Your task to perform on an android device: Open calendar and show me the second week of next month Image 0: 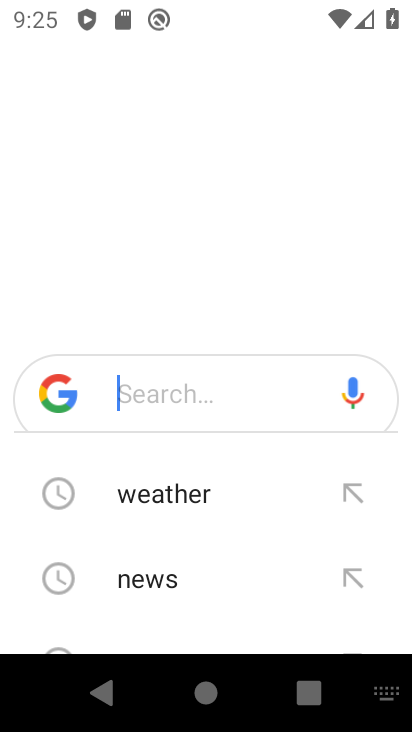
Step 0: press home button
Your task to perform on an android device: Open calendar and show me the second week of next month Image 1: 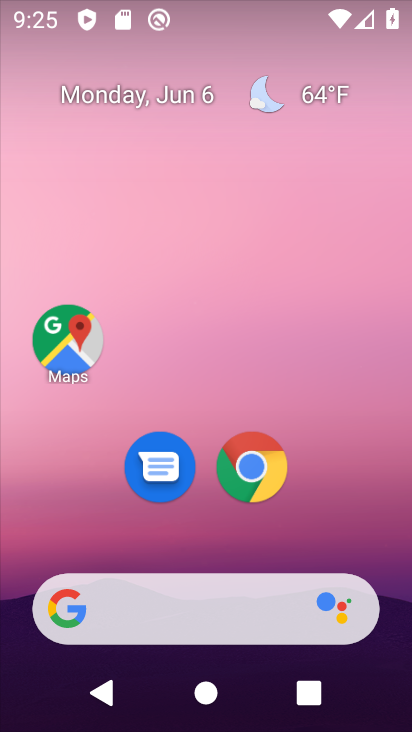
Step 1: drag from (96, 565) to (182, 132)
Your task to perform on an android device: Open calendar and show me the second week of next month Image 2: 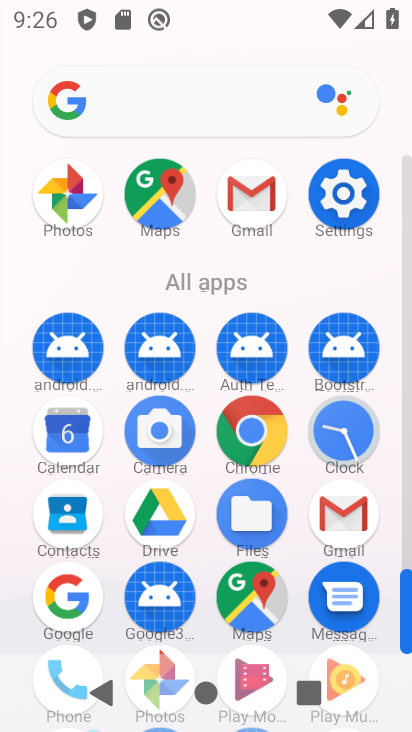
Step 2: click (56, 439)
Your task to perform on an android device: Open calendar and show me the second week of next month Image 3: 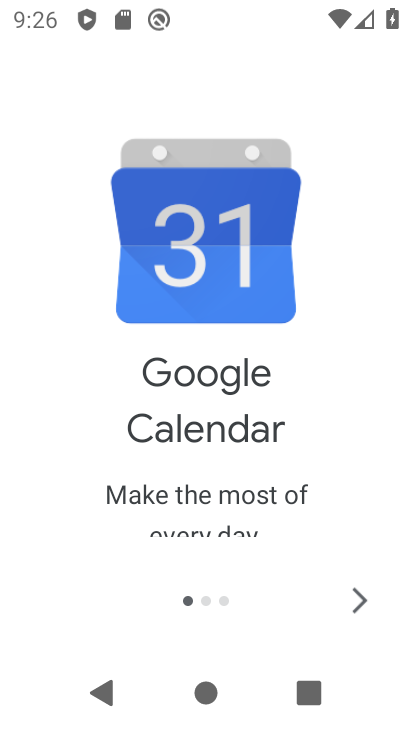
Step 3: click (362, 608)
Your task to perform on an android device: Open calendar and show me the second week of next month Image 4: 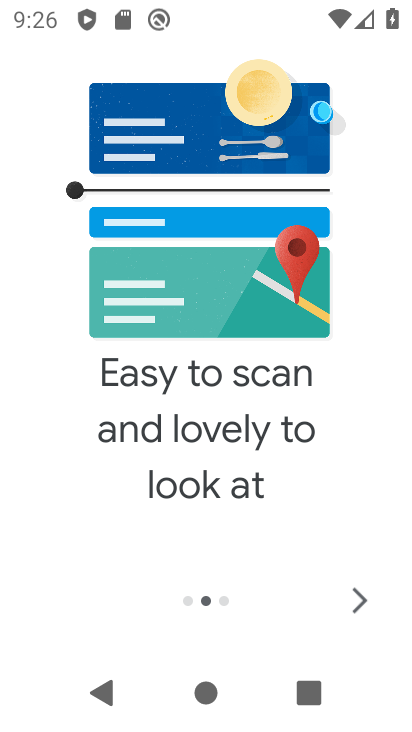
Step 4: click (362, 608)
Your task to perform on an android device: Open calendar and show me the second week of next month Image 5: 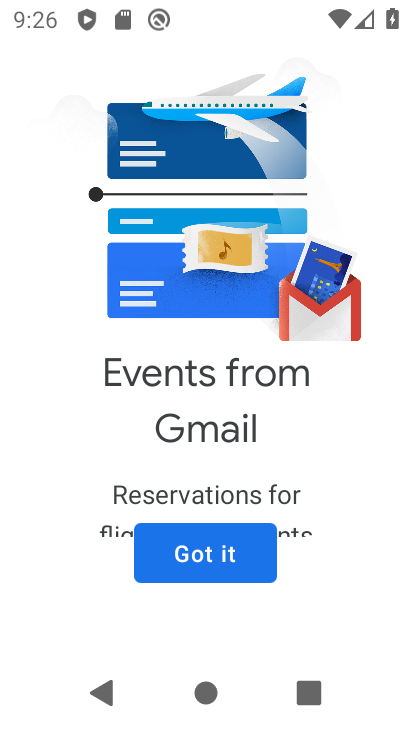
Step 5: click (231, 556)
Your task to perform on an android device: Open calendar and show me the second week of next month Image 6: 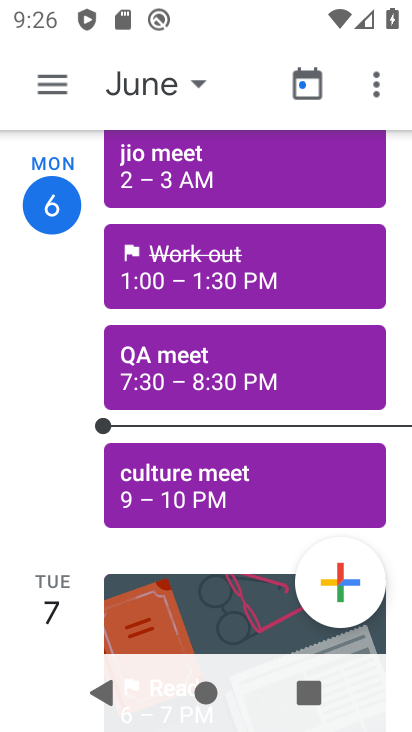
Step 6: click (152, 93)
Your task to perform on an android device: Open calendar and show me the second week of next month Image 7: 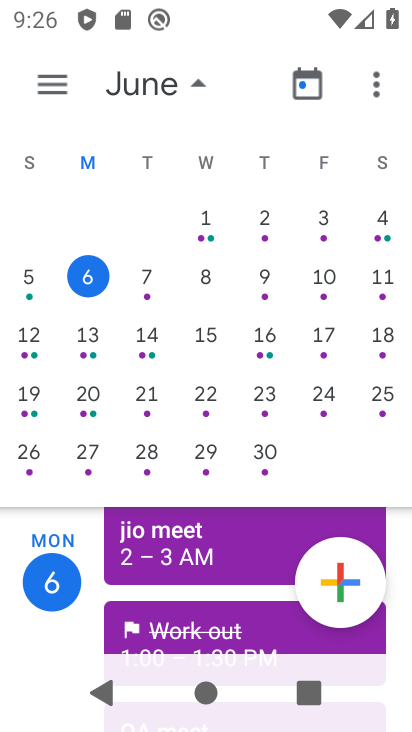
Step 7: drag from (368, 423) to (4, 286)
Your task to perform on an android device: Open calendar and show me the second week of next month Image 8: 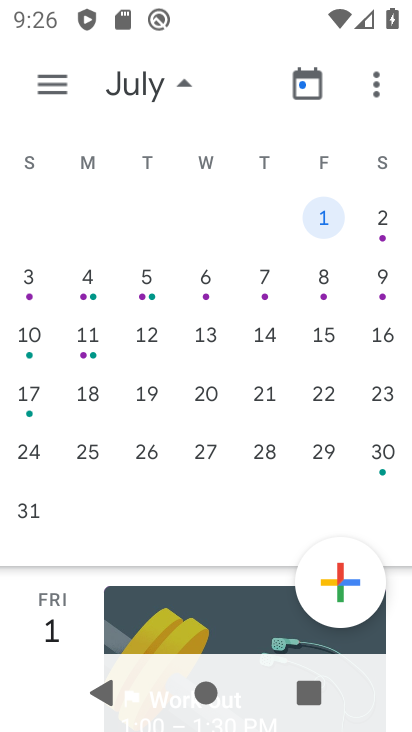
Step 8: click (31, 345)
Your task to perform on an android device: Open calendar and show me the second week of next month Image 9: 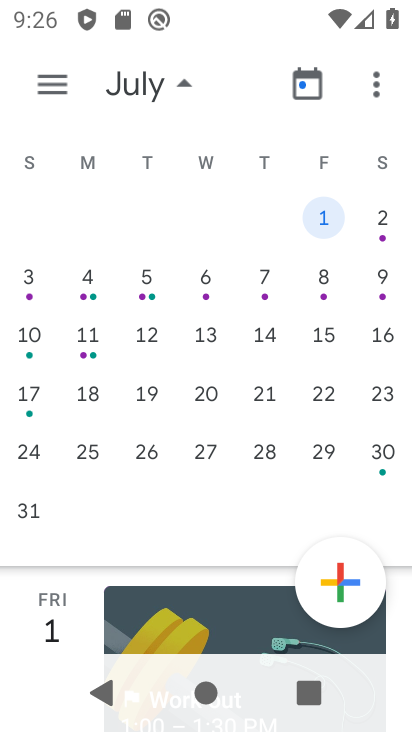
Step 9: click (30, 344)
Your task to perform on an android device: Open calendar and show me the second week of next month Image 10: 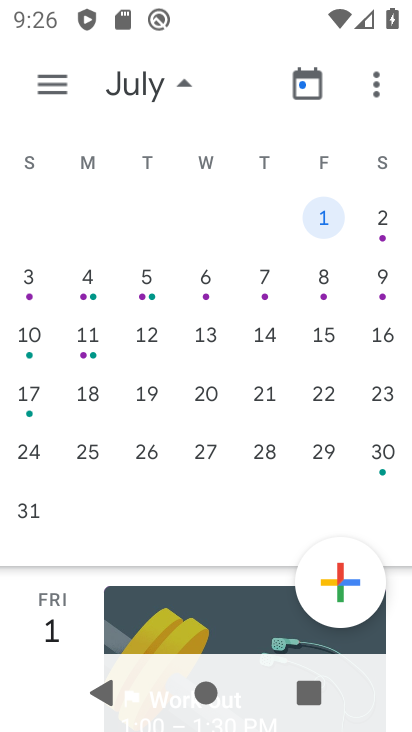
Step 10: click (32, 335)
Your task to perform on an android device: Open calendar and show me the second week of next month Image 11: 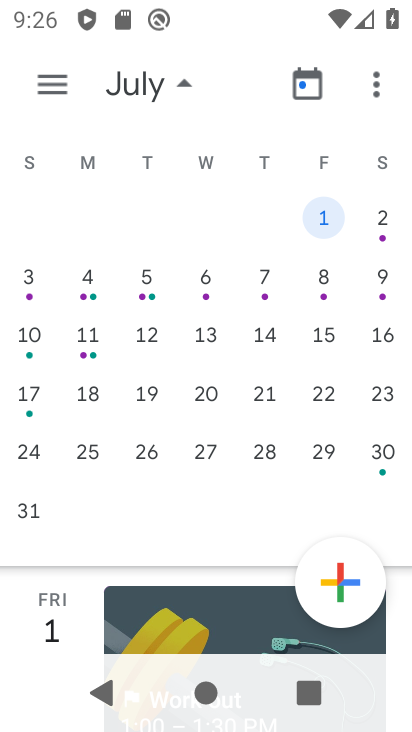
Step 11: click (33, 330)
Your task to perform on an android device: Open calendar and show me the second week of next month Image 12: 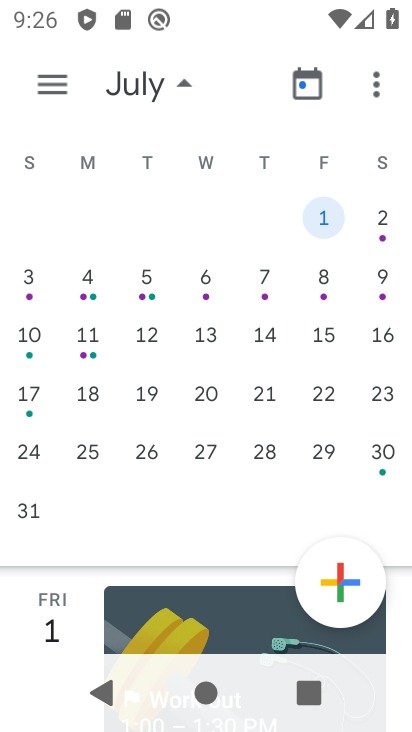
Step 12: click (33, 330)
Your task to perform on an android device: Open calendar and show me the second week of next month Image 13: 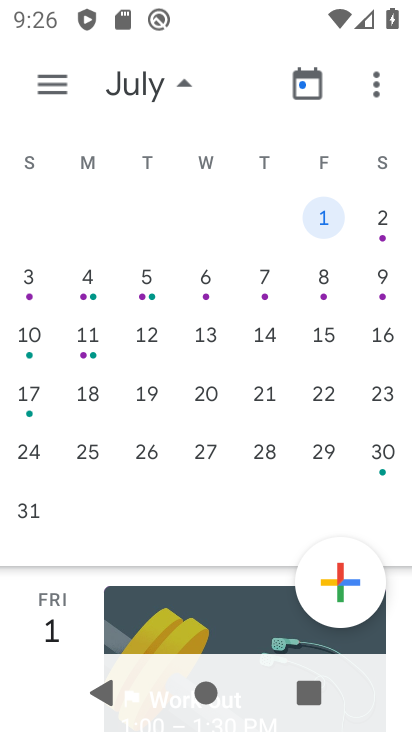
Step 13: click (33, 335)
Your task to perform on an android device: Open calendar and show me the second week of next month Image 14: 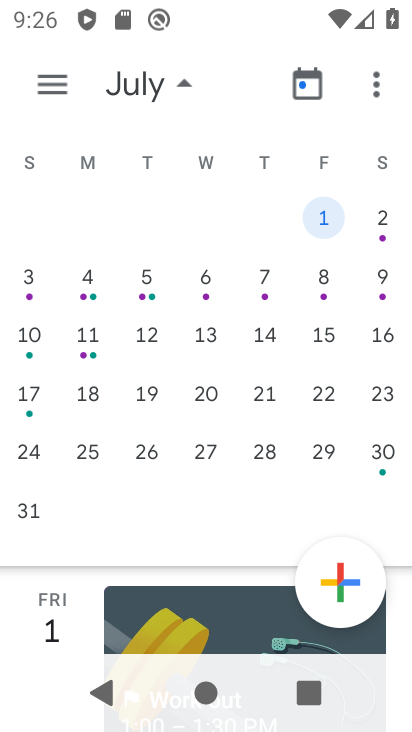
Step 14: click (33, 337)
Your task to perform on an android device: Open calendar and show me the second week of next month Image 15: 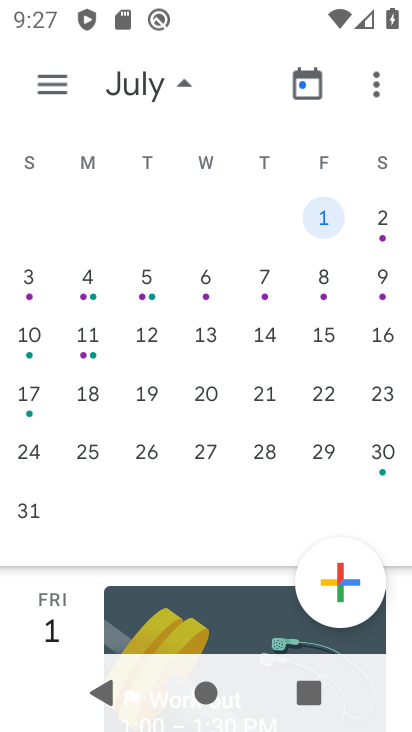
Step 15: click (24, 336)
Your task to perform on an android device: Open calendar and show me the second week of next month Image 16: 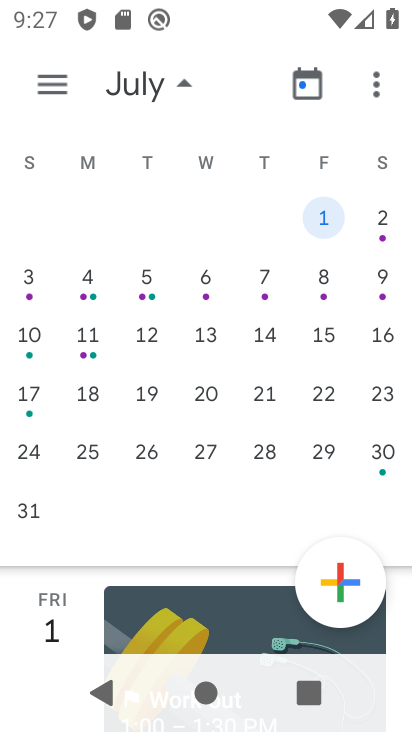
Step 16: click (33, 334)
Your task to perform on an android device: Open calendar and show me the second week of next month Image 17: 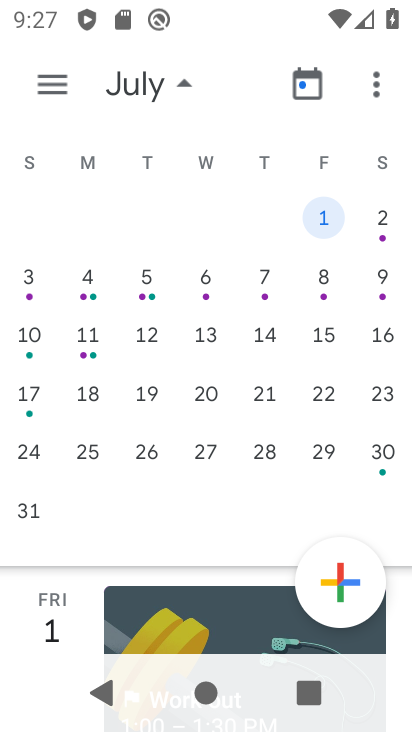
Step 17: click (28, 331)
Your task to perform on an android device: Open calendar and show me the second week of next month Image 18: 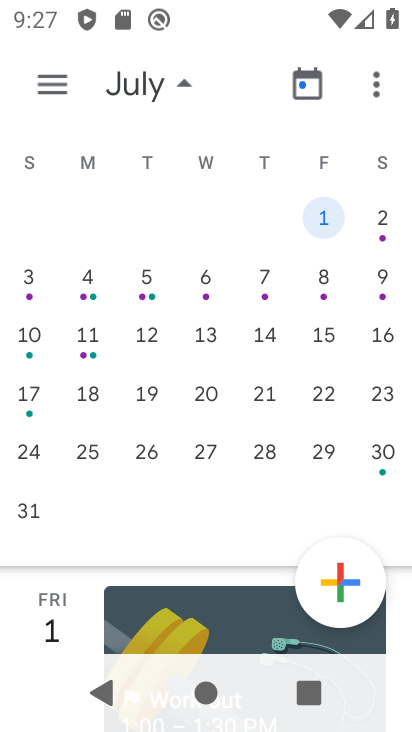
Step 18: click (33, 329)
Your task to perform on an android device: Open calendar and show me the second week of next month Image 19: 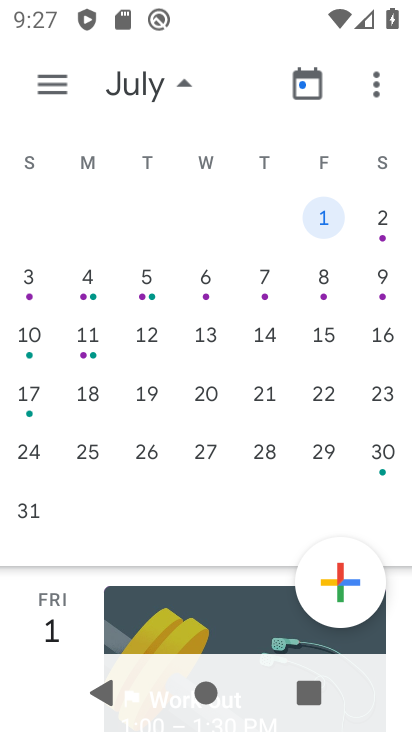
Step 19: click (33, 338)
Your task to perform on an android device: Open calendar and show me the second week of next month Image 20: 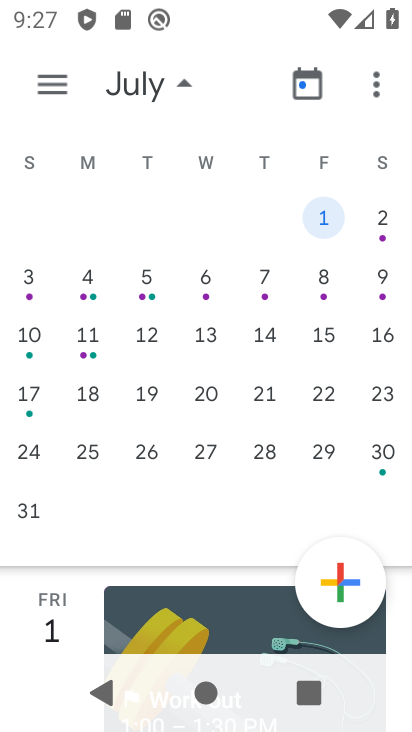
Step 20: click (33, 336)
Your task to perform on an android device: Open calendar and show me the second week of next month Image 21: 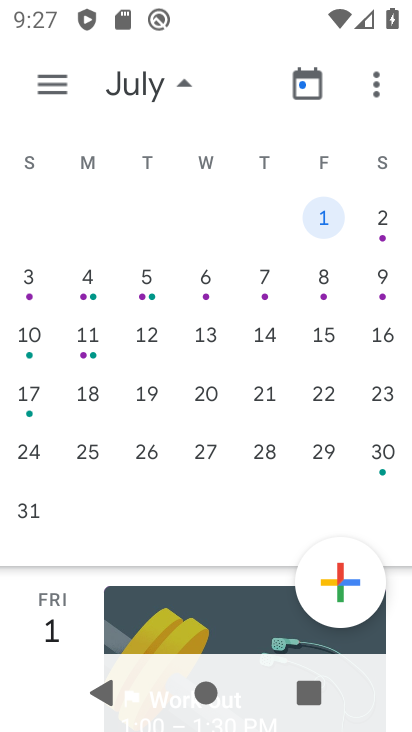
Step 21: click (35, 345)
Your task to perform on an android device: Open calendar and show me the second week of next month Image 22: 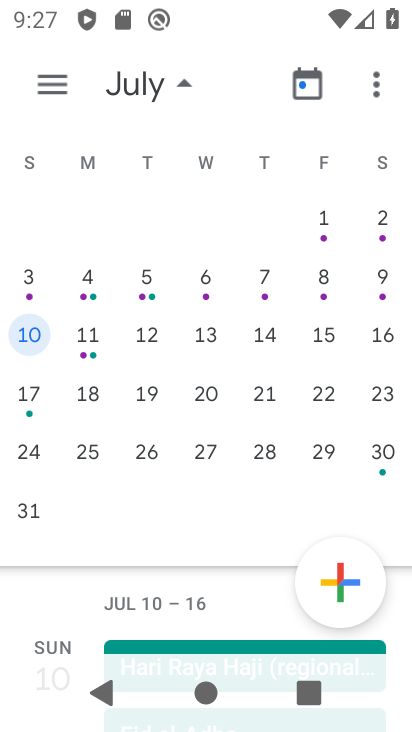
Step 22: click (32, 79)
Your task to perform on an android device: Open calendar and show me the second week of next month Image 23: 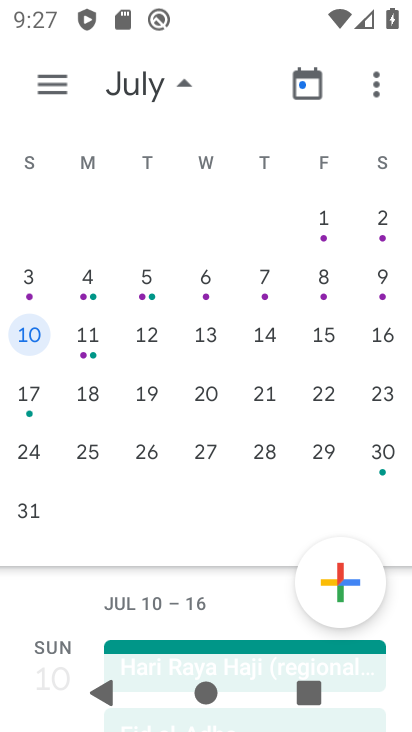
Step 23: click (62, 87)
Your task to perform on an android device: Open calendar and show me the second week of next month Image 24: 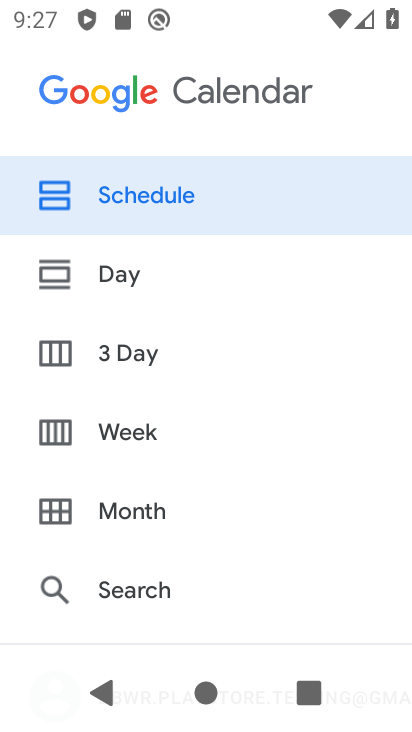
Step 24: click (147, 444)
Your task to perform on an android device: Open calendar and show me the second week of next month Image 25: 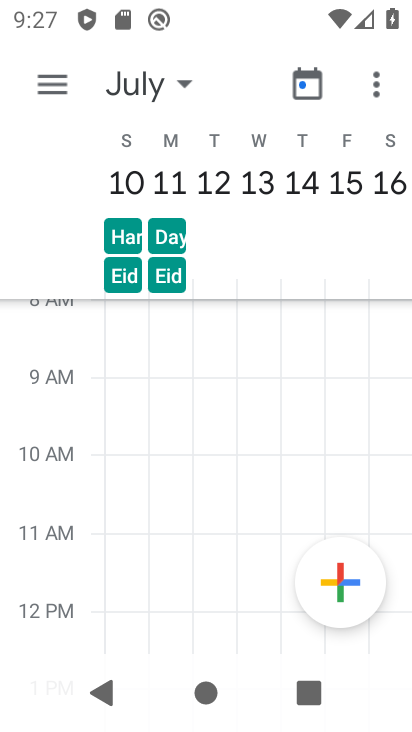
Step 25: task complete